Your task to perform on an android device: Search for vegetarian restaurants on Maps Image 0: 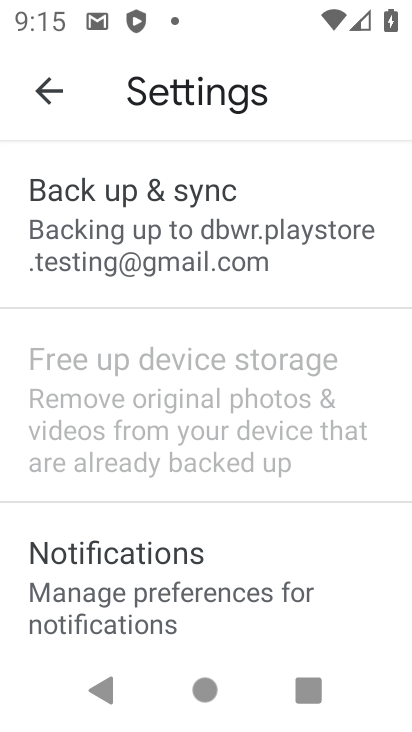
Step 0: press home button
Your task to perform on an android device: Search for vegetarian restaurants on Maps Image 1: 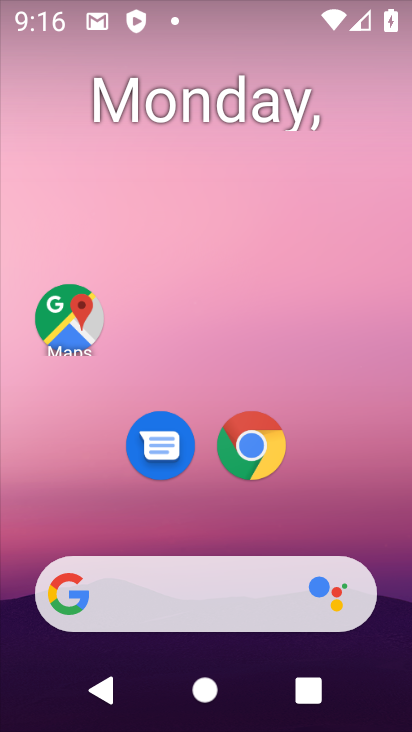
Step 1: click (71, 315)
Your task to perform on an android device: Search for vegetarian restaurants on Maps Image 2: 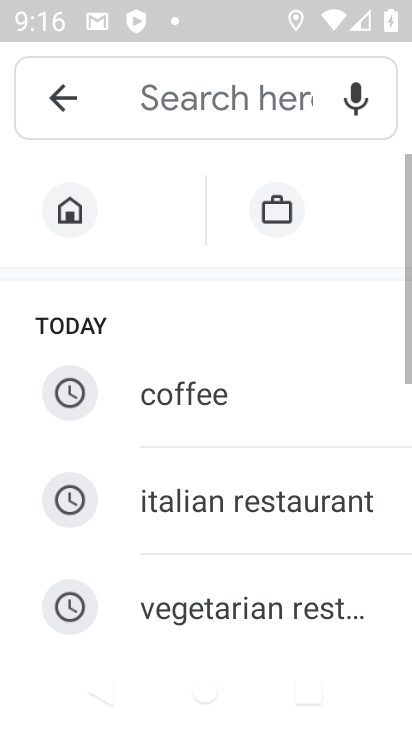
Step 2: click (270, 106)
Your task to perform on an android device: Search for vegetarian restaurants on Maps Image 3: 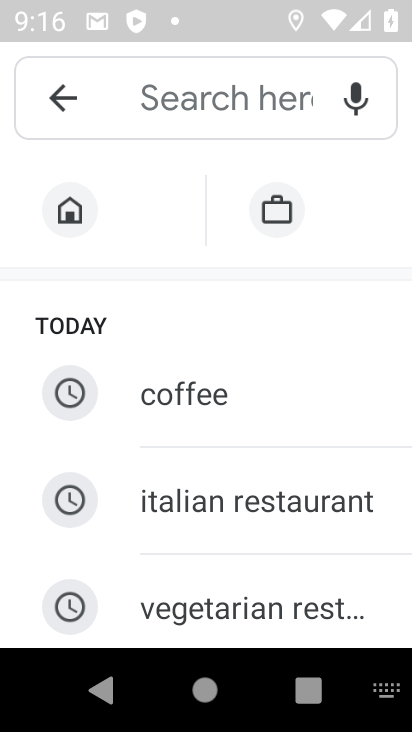
Step 3: click (261, 617)
Your task to perform on an android device: Search for vegetarian restaurants on Maps Image 4: 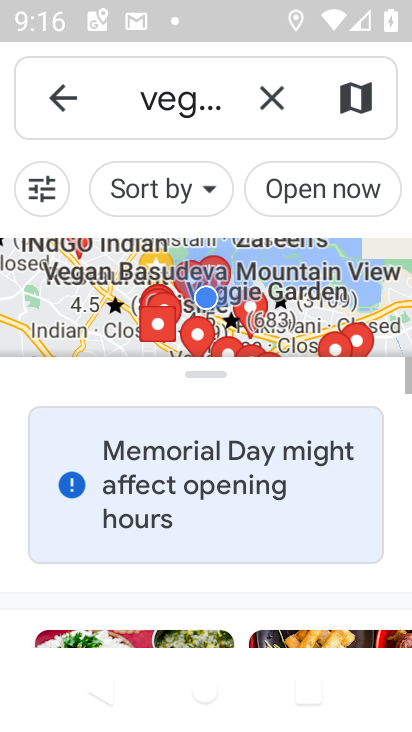
Step 4: task complete